Your task to perform on an android device: How much does the Samsung TV cost? Image 0: 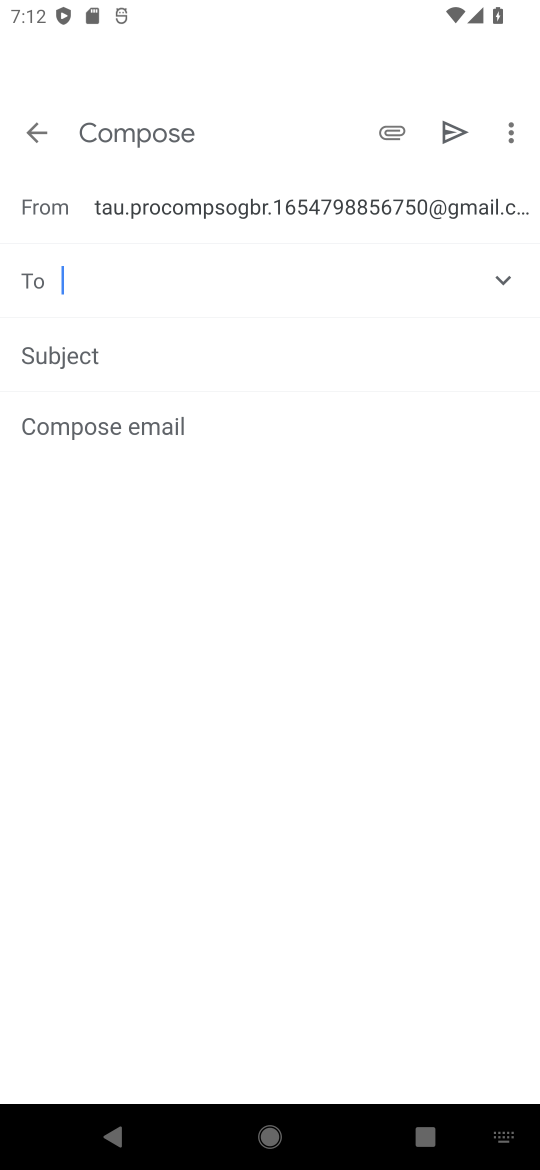
Step 0: press home button
Your task to perform on an android device: How much does the Samsung TV cost? Image 1: 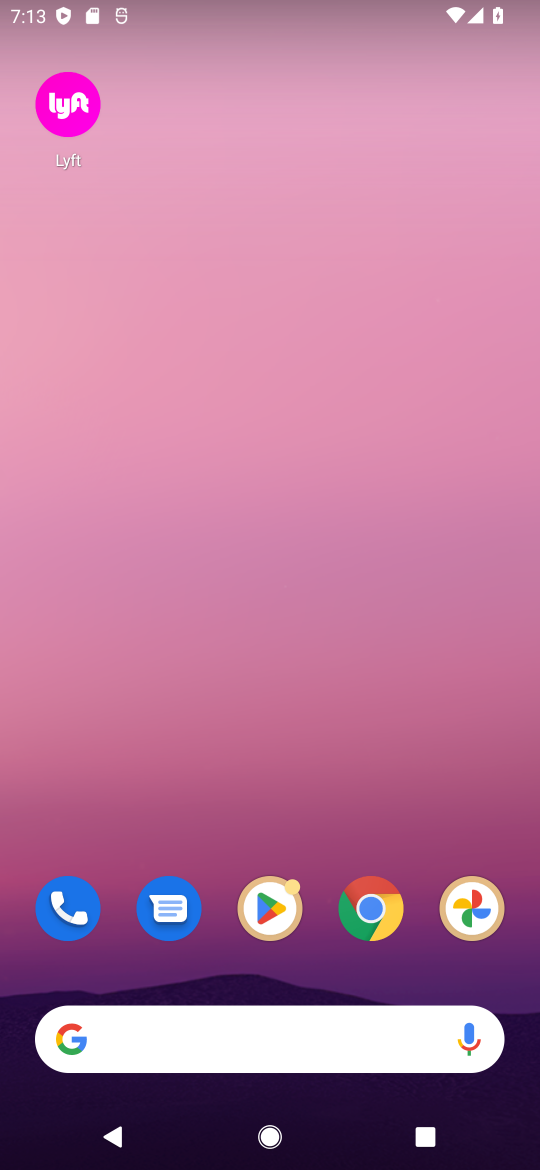
Step 1: click (316, 1026)
Your task to perform on an android device: How much does the Samsung TV cost? Image 2: 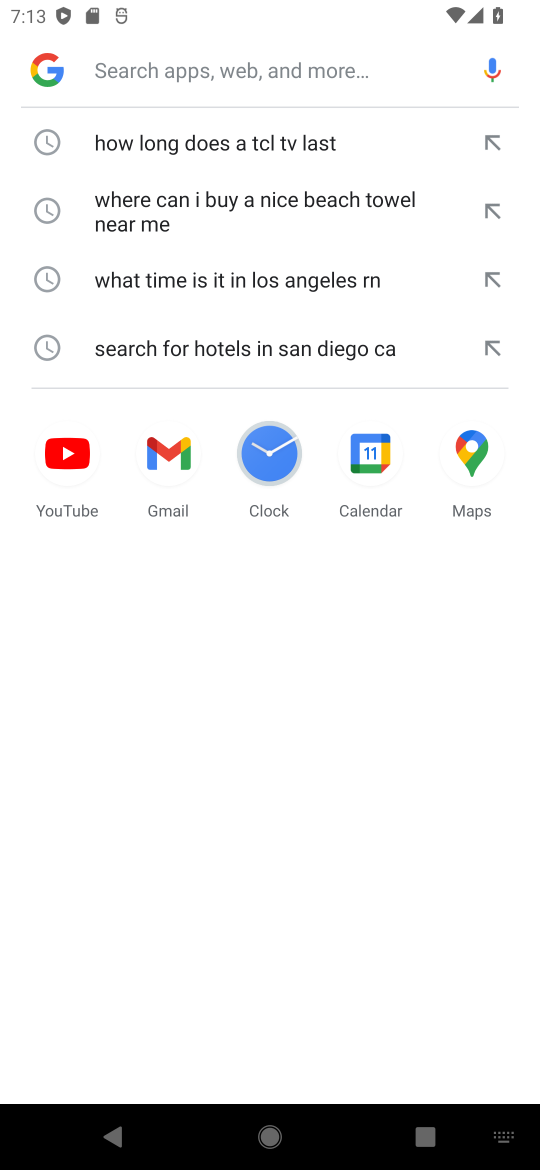
Step 2: type "How much does the Samsung TV cost?"
Your task to perform on an android device: How much does the Samsung TV cost? Image 3: 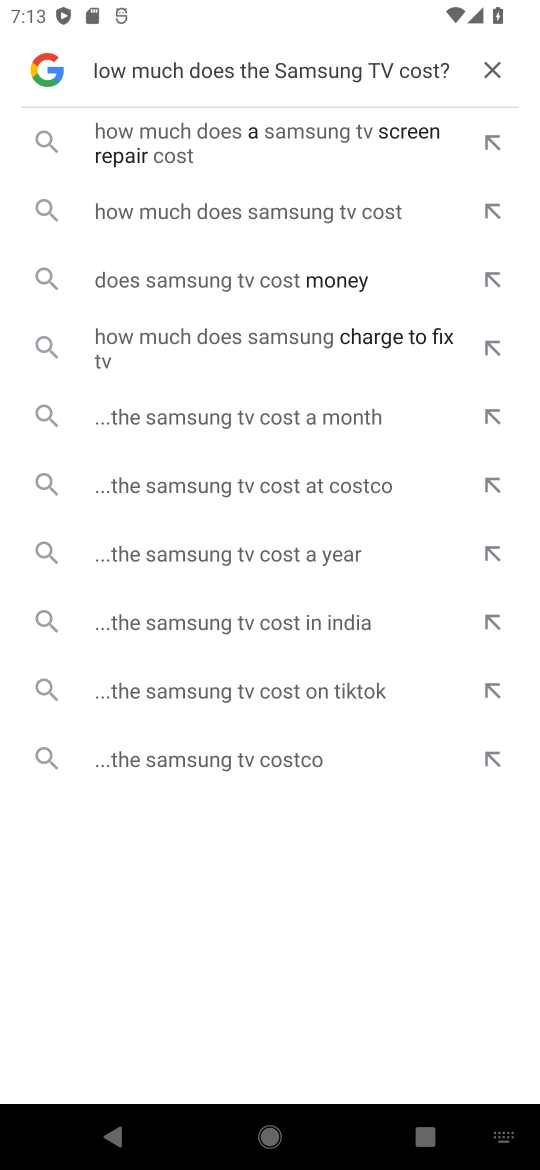
Step 3: click (319, 207)
Your task to perform on an android device: How much does the Samsung TV cost? Image 4: 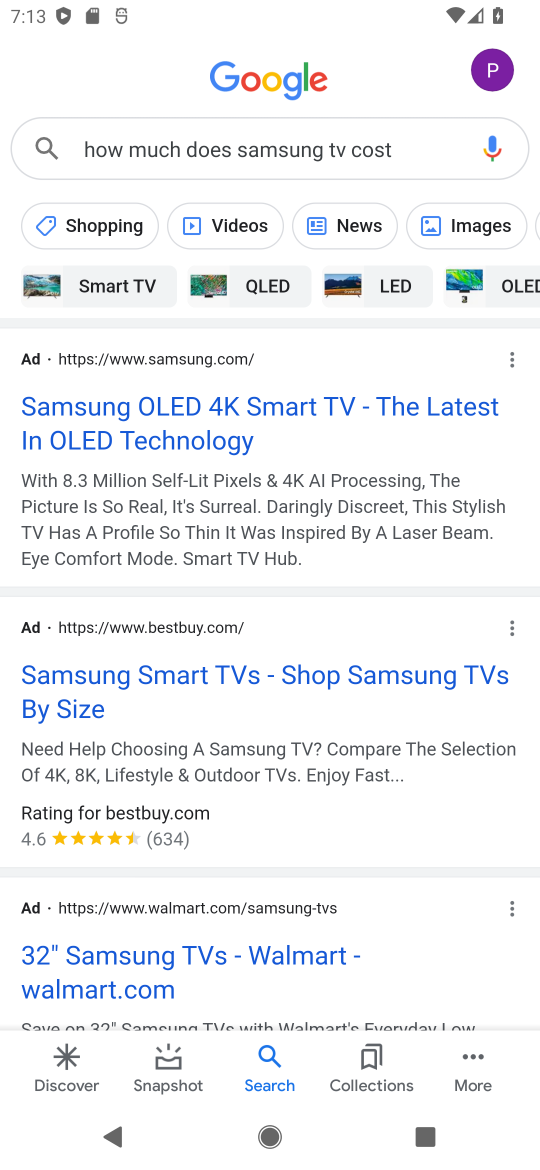
Step 4: click (212, 407)
Your task to perform on an android device: How much does the Samsung TV cost? Image 5: 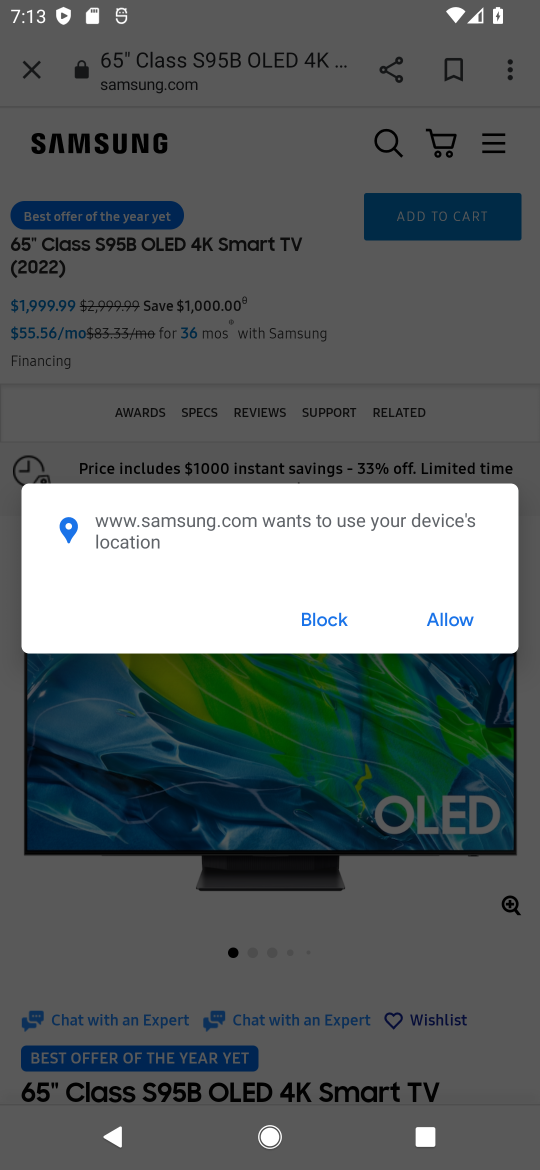
Step 5: click (432, 611)
Your task to perform on an android device: How much does the Samsung TV cost? Image 6: 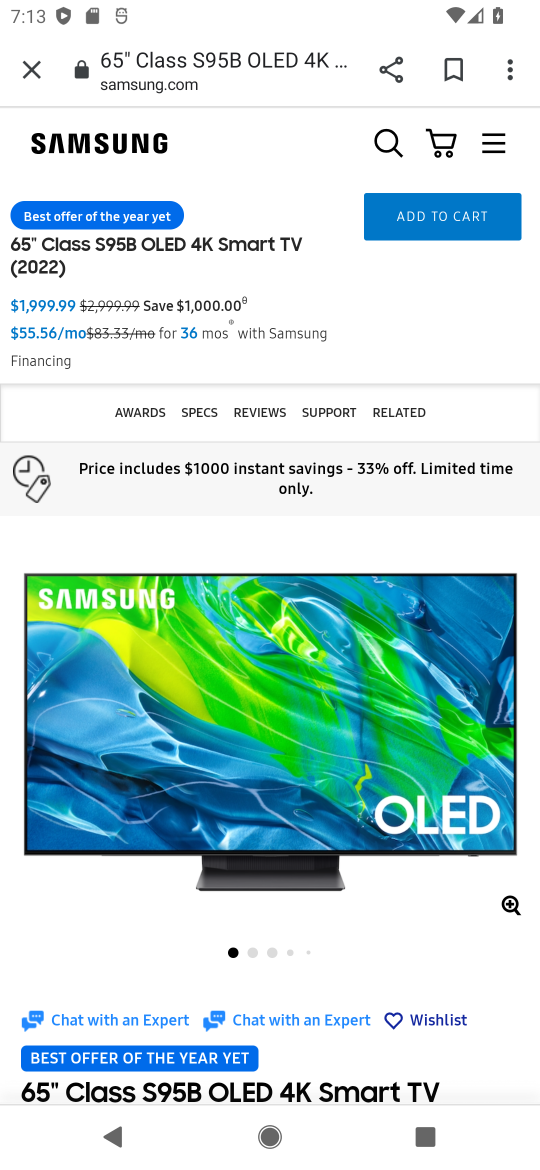
Step 6: task complete